Your task to perform on an android device: Set the phone to "Do not disturb". Image 0: 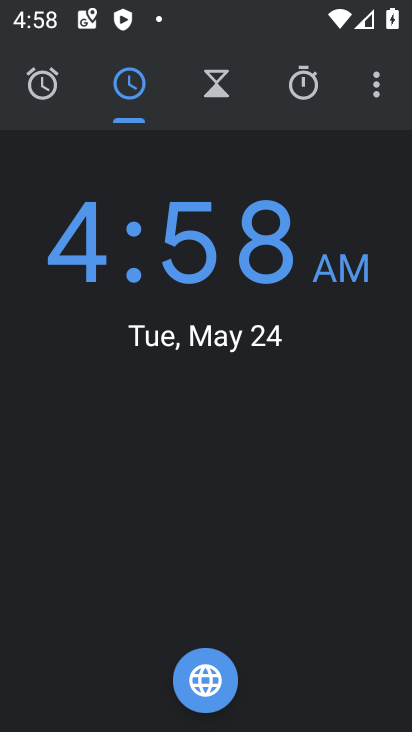
Step 0: press back button
Your task to perform on an android device: Set the phone to "Do not disturb". Image 1: 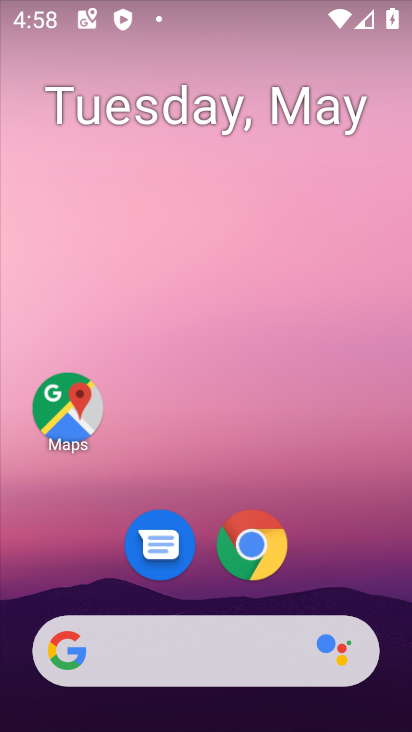
Step 1: drag from (327, 543) to (295, 41)
Your task to perform on an android device: Set the phone to "Do not disturb". Image 2: 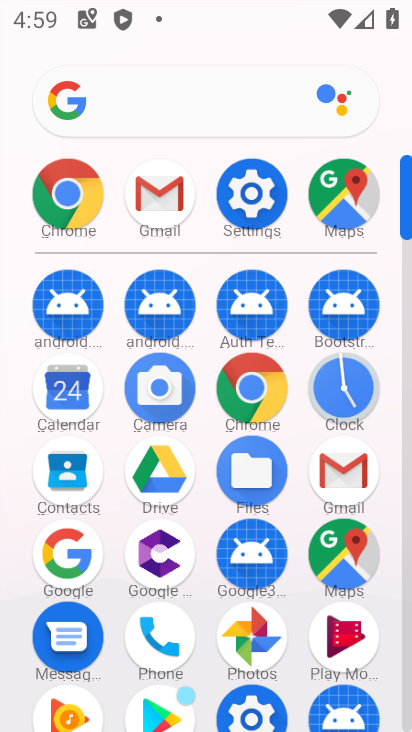
Step 2: click (251, 188)
Your task to perform on an android device: Set the phone to "Do not disturb". Image 3: 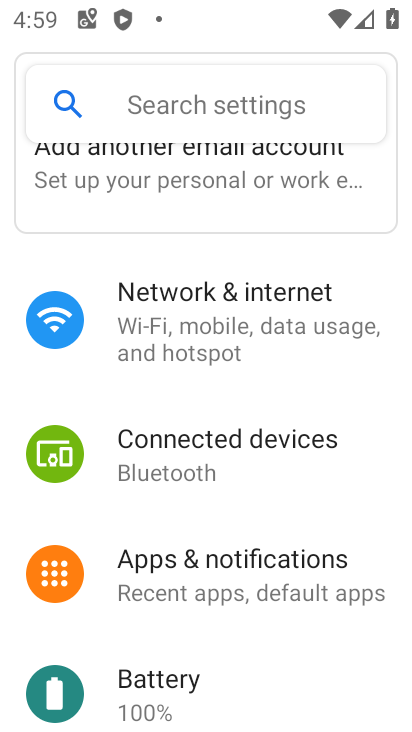
Step 3: drag from (269, 602) to (299, 235)
Your task to perform on an android device: Set the phone to "Do not disturb". Image 4: 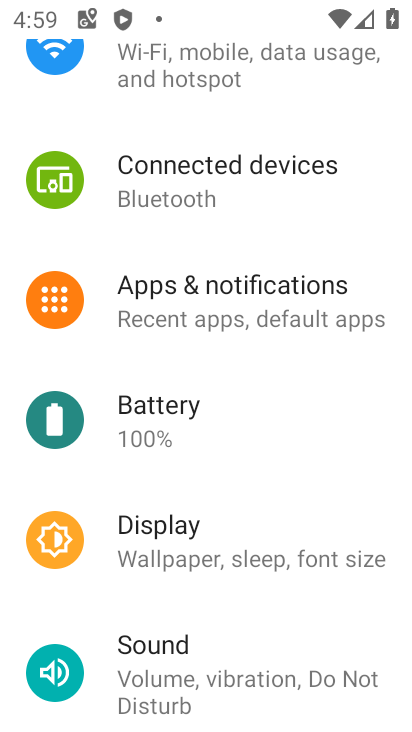
Step 4: click (250, 682)
Your task to perform on an android device: Set the phone to "Do not disturb". Image 5: 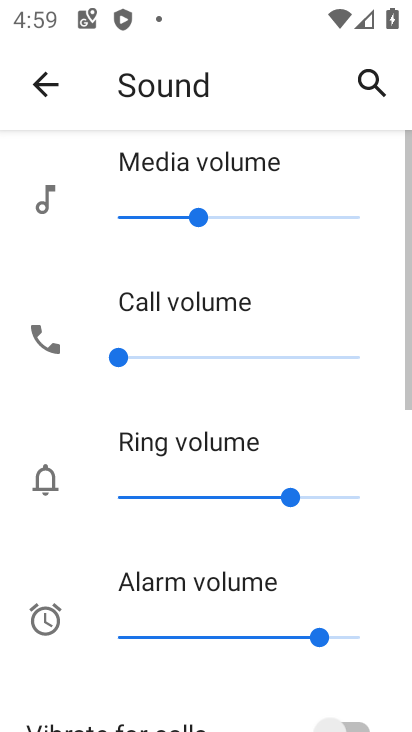
Step 5: drag from (189, 598) to (242, 182)
Your task to perform on an android device: Set the phone to "Do not disturb". Image 6: 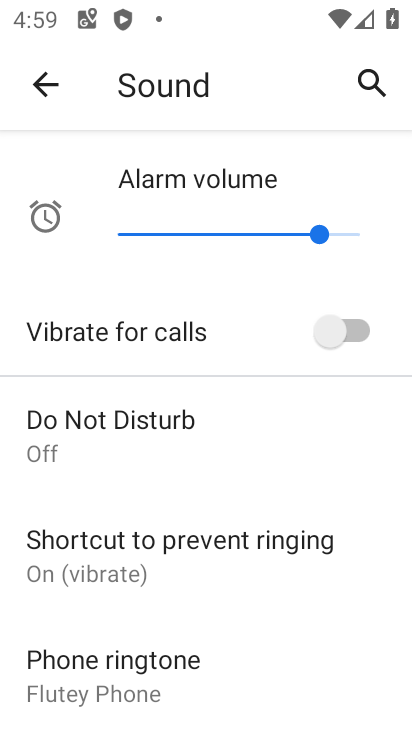
Step 6: click (178, 415)
Your task to perform on an android device: Set the phone to "Do not disturb". Image 7: 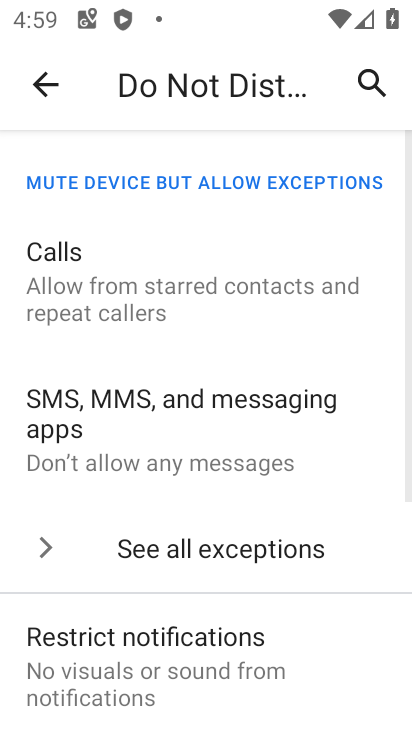
Step 7: drag from (229, 591) to (269, 203)
Your task to perform on an android device: Set the phone to "Do not disturb". Image 8: 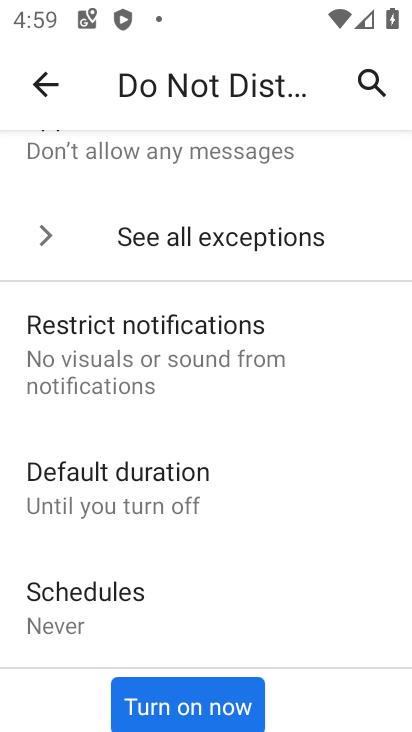
Step 8: drag from (198, 645) to (247, 339)
Your task to perform on an android device: Set the phone to "Do not disturb". Image 9: 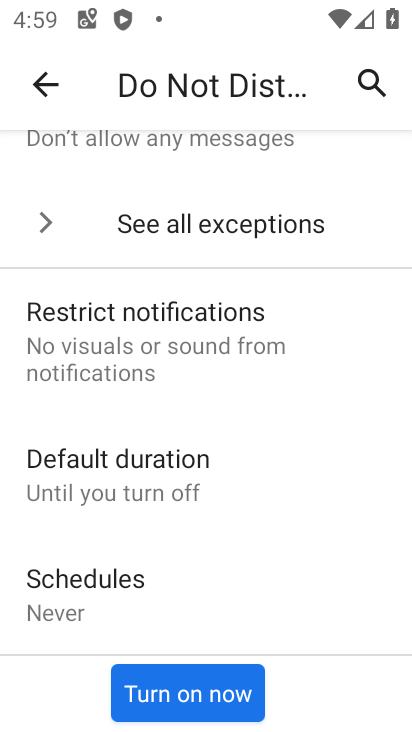
Step 9: click (180, 662)
Your task to perform on an android device: Set the phone to "Do not disturb". Image 10: 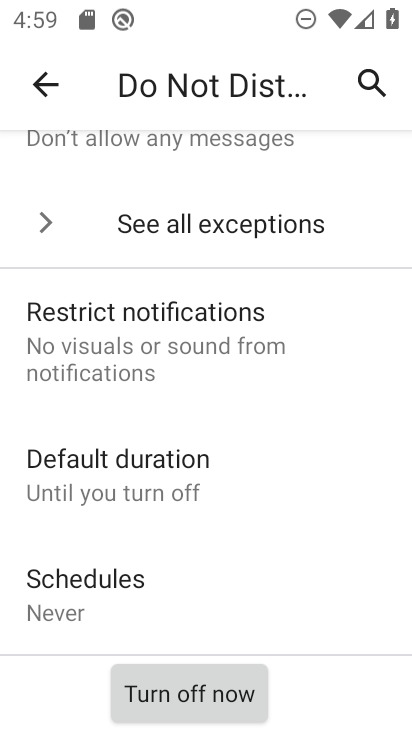
Step 10: task complete